Your task to perform on an android device: toggle priority inbox in the gmail app Image 0: 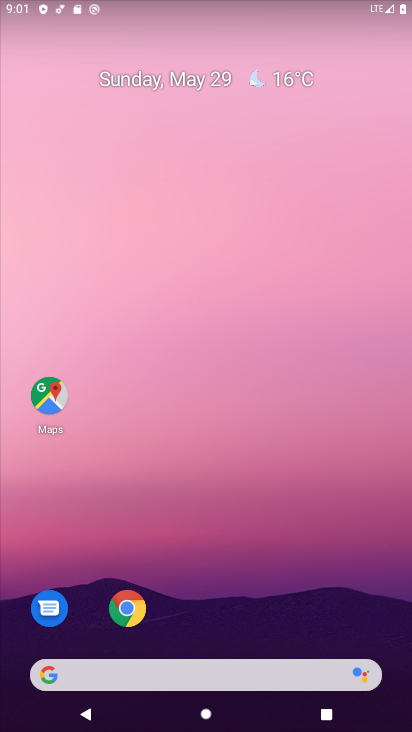
Step 0: drag from (190, 636) to (209, 0)
Your task to perform on an android device: toggle priority inbox in the gmail app Image 1: 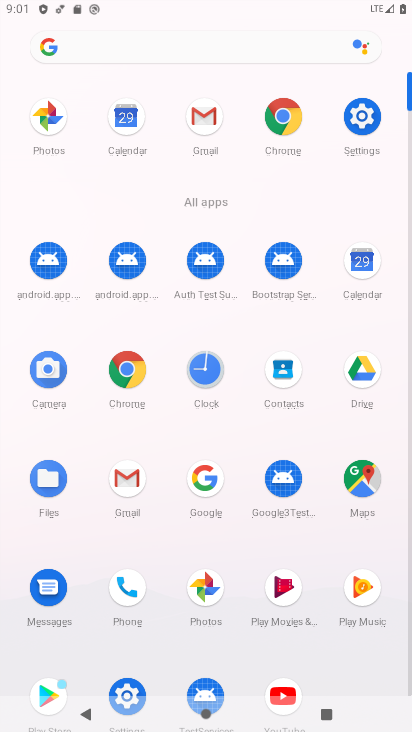
Step 1: click (126, 485)
Your task to perform on an android device: toggle priority inbox in the gmail app Image 2: 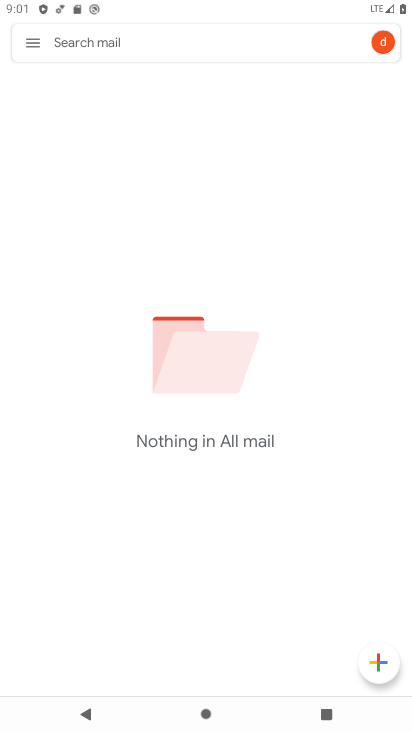
Step 2: click (40, 46)
Your task to perform on an android device: toggle priority inbox in the gmail app Image 3: 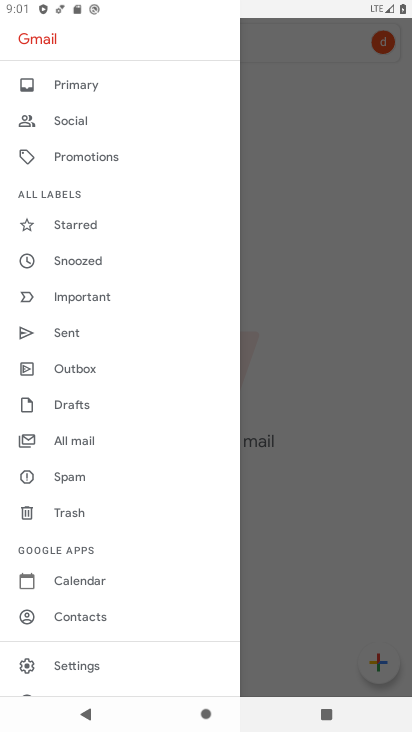
Step 3: click (73, 662)
Your task to perform on an android device: toggle priority inbox in the gmail app Image 4: 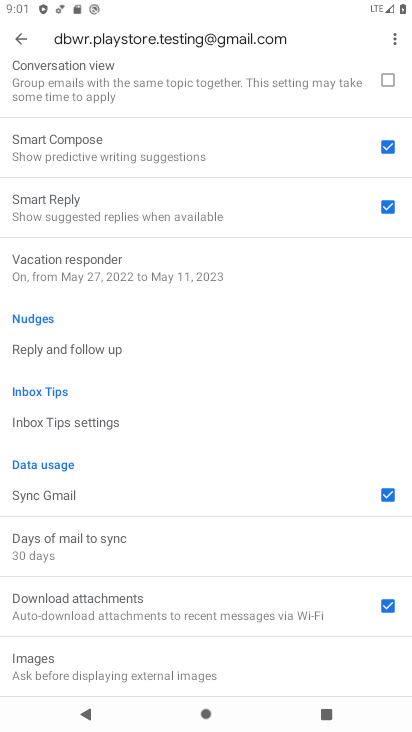
Step 4: drag from (54, 279) to (32, 654)
Your task to perform on an android device: toggle priority inbox in the gmail app Image 5: 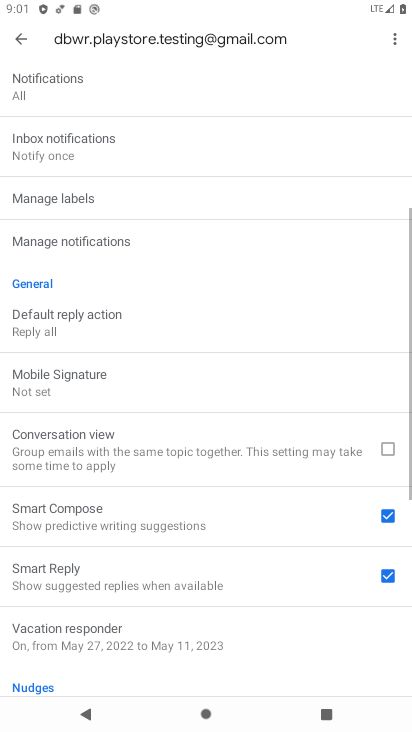
Step 5: drag from (161, 193) to (71, 709)
Your task to perform on an android device: toggle priority inbox in the gmail app Image 6: 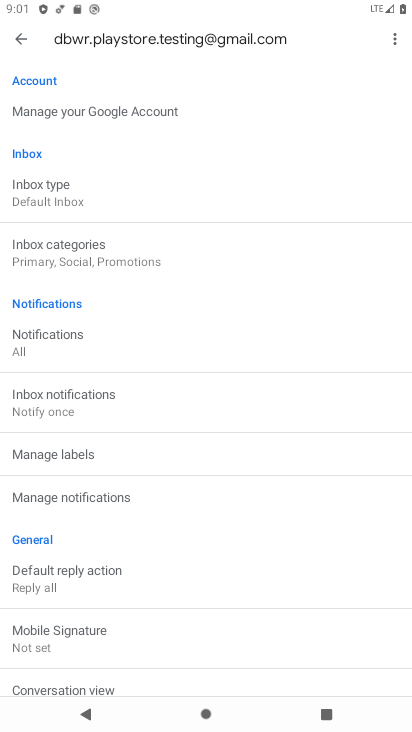
Step 6: click (57, 198)
Your task to perform on an android device: toggle priority inbox in the gmail app Image 7: 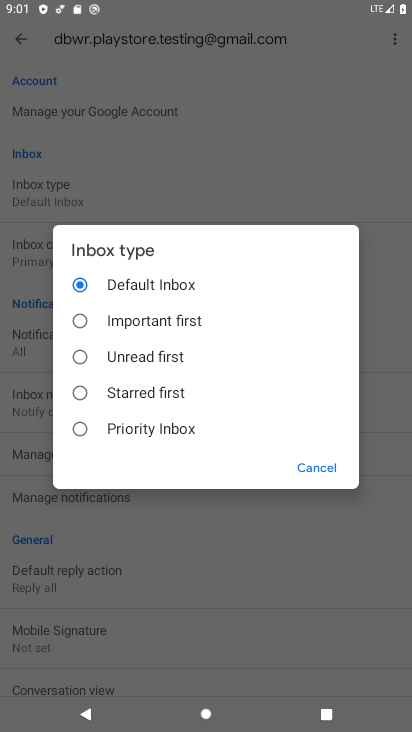
Step 7: click (85, 432)
Your task to perform on an android device: toggle priority inbox in the gmail app Image 8: 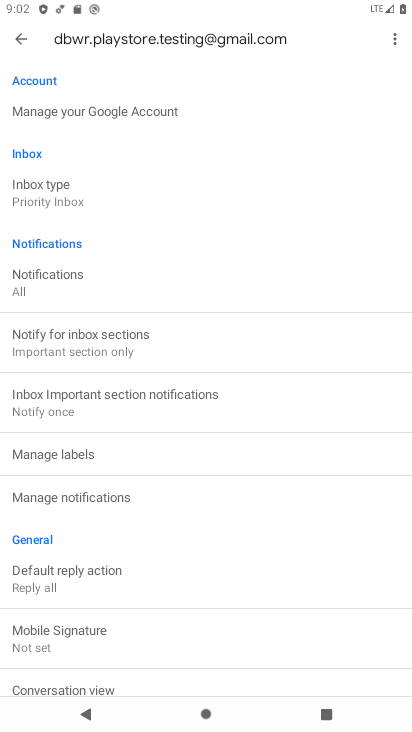
Step 8: task complete